Your task to perform on an android device: toggle notification dots Image 0: 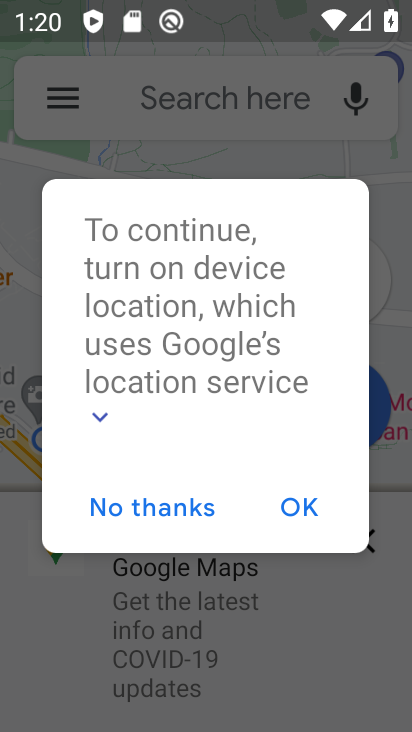
Step 0: click (291, 502)
Your task to perform on an android device: toggle notification dots Image 1: 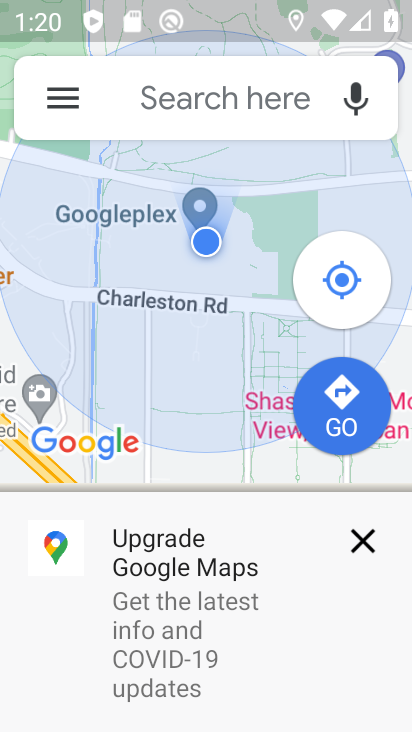
Step 1: press home button
Your task to perform on an android device: toggle notification dots Image 2: 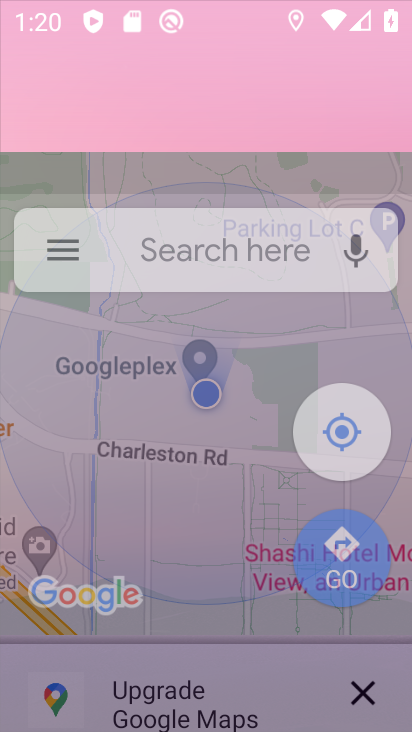
Step 2: drag from (179, 552) to (267, 63)
Your task to perform on an android device: toggle notification dots Image 3: 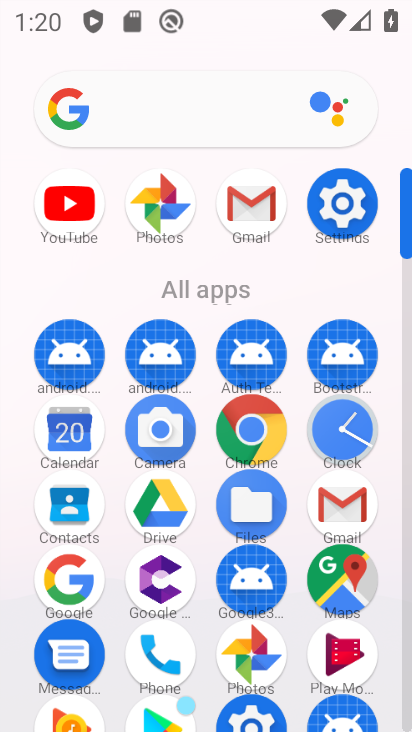
Step 3: drag from (205, 636) to (201, 290)
Your task to perform on an android device: toggle notification dots Image 4: 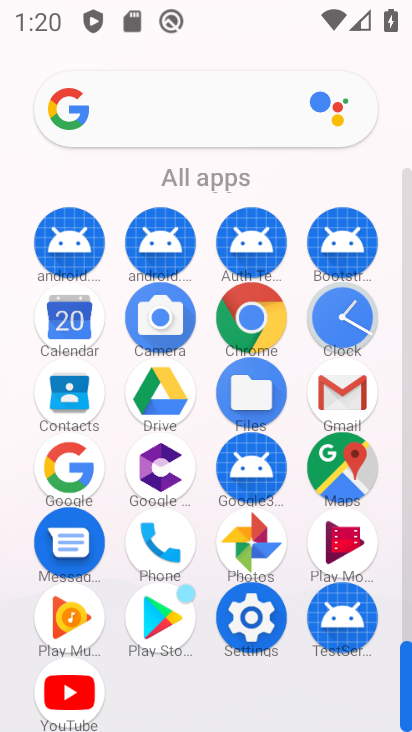
Step 4: click (257, 608)
Your task to perform on an android device: toggle notification dots Image 5: 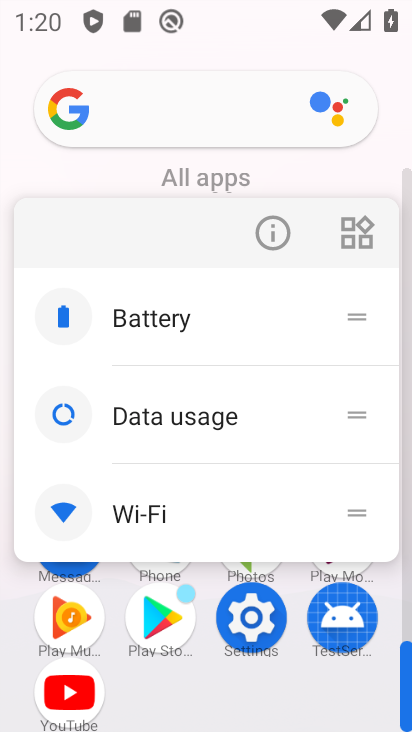
Step 5: click (285, 231)
Your task to perform on an android device: toggle notification dots Image 6: 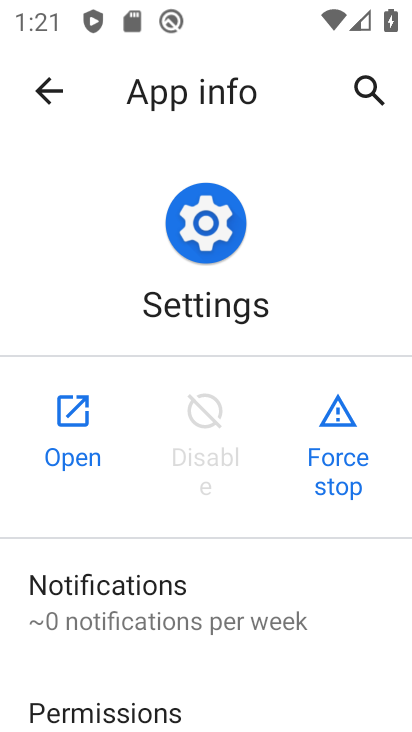
Step 6: click (64, 450)
Your task to perform on an android device: toggle notification dots Image 7: 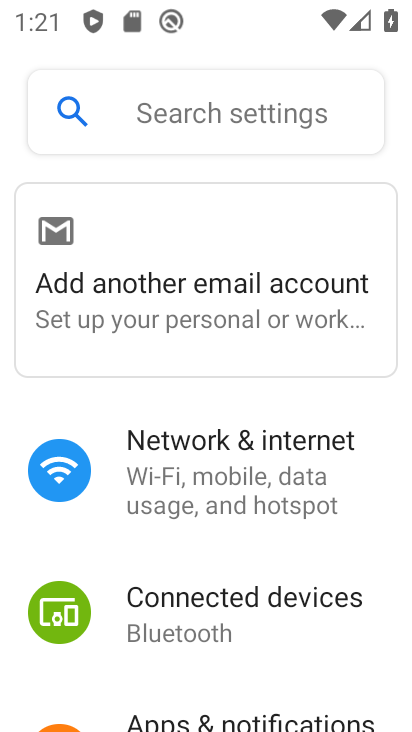
Step 7: drag from (219, 657) to (261, 337)
Your task to perform on an android device: toggle notification dots Image 8: 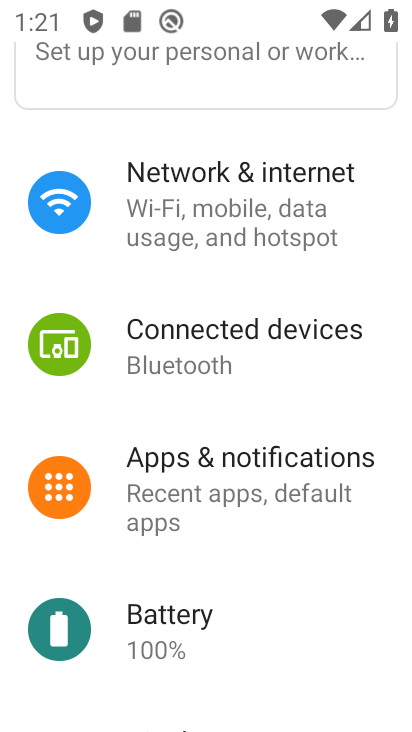
Step 8: drag from (237, 617) to (330, 198)
Your task to perform on an android device: toggle notification dots Image 9: 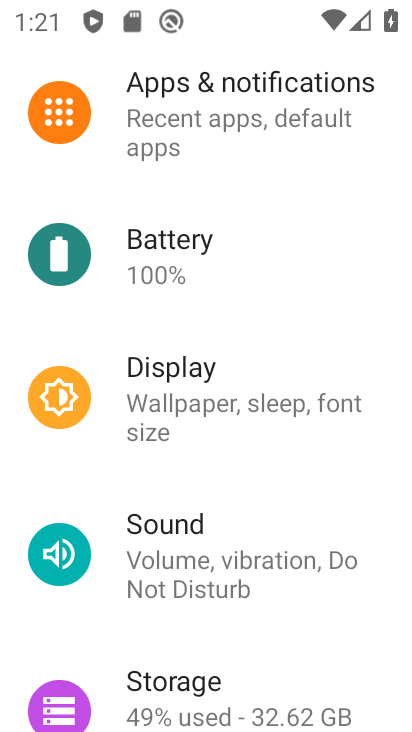
Step 9: drag from (255, 646) to (341, 315)
Your task to perform on an android device: toggle notification dots Image 10: 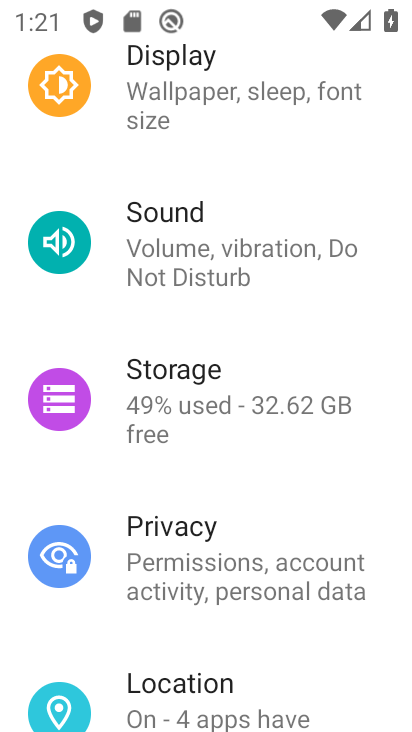
Step 10: drag from (256, 589) to (288, 314)
Your task to perform on an android device: toggle notification dots Image 11: 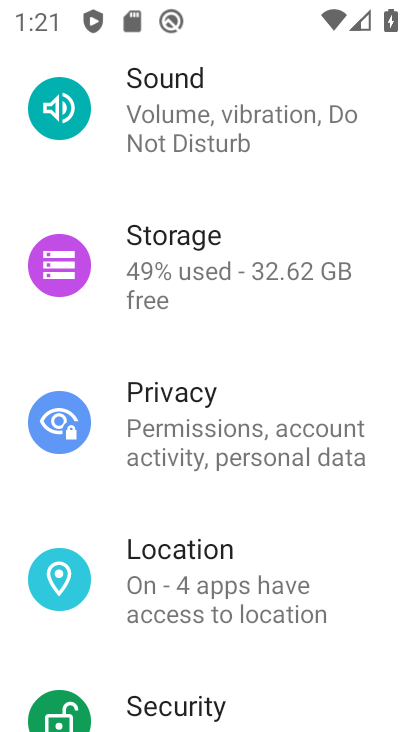
Step 11: drag from (215, 333) to (311, 605)
Your task to perform on an android device: toggle notification dots Image 12: 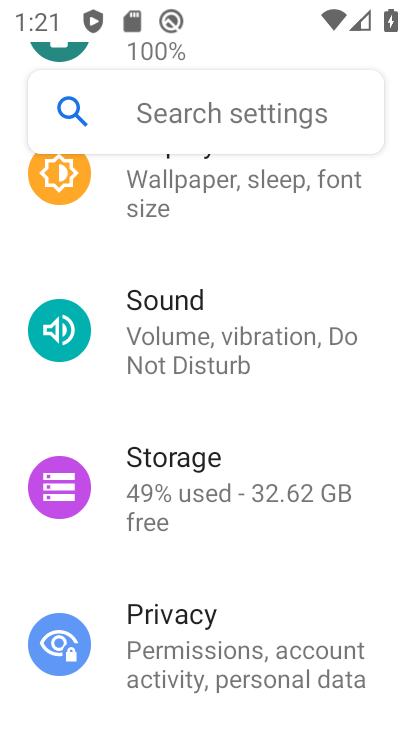
Step 12: drag from (225, 279) to (348, 689)
Your task to perform on an android device: toggle notification dots Image 13: 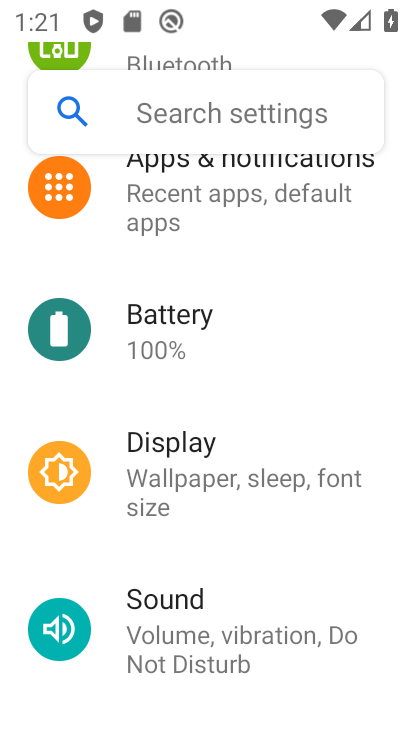
Step 13: click (215, 191)
Your task to perform on an android device: toggle notification dots Image 14: 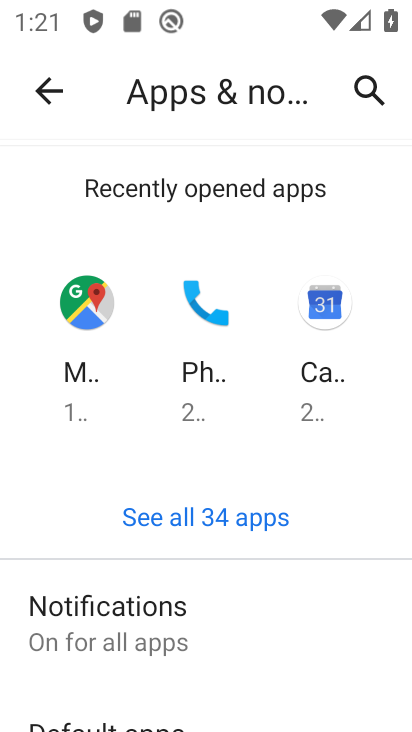
Step 14: click (248, 239)
Your task to perform on an android device: toggle notification dots Image 15: 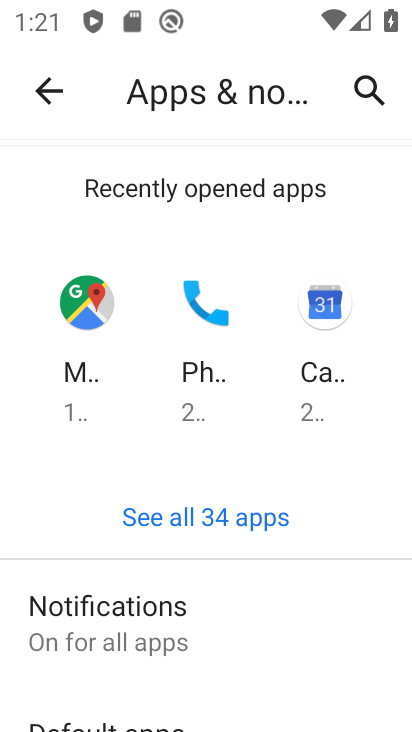
Step 15: click (220, 616)
Your task to perform on an android device: toggle notification dots Image 16: 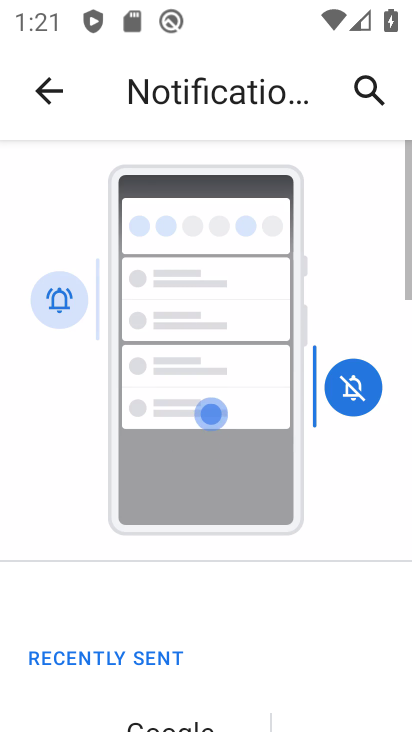
Step 16: drag from (226, 612) to (319, 78)
Your task to perform on an android device: toggle notification dots Image 17: 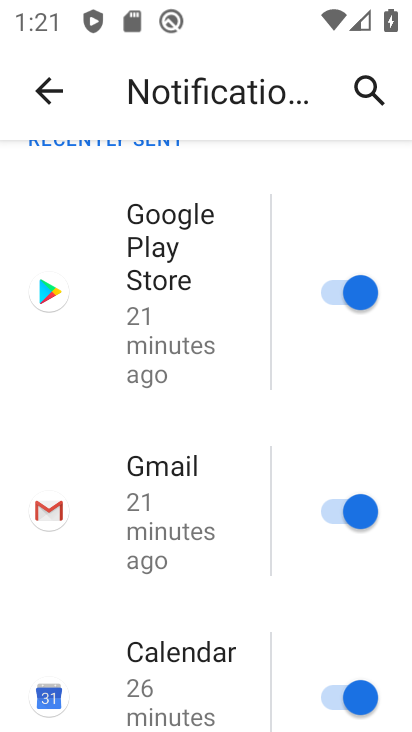
Step 17: drag from (227, 638) to (293, 299)
Your task to perform on an android device: toggle notification dots Image 18: 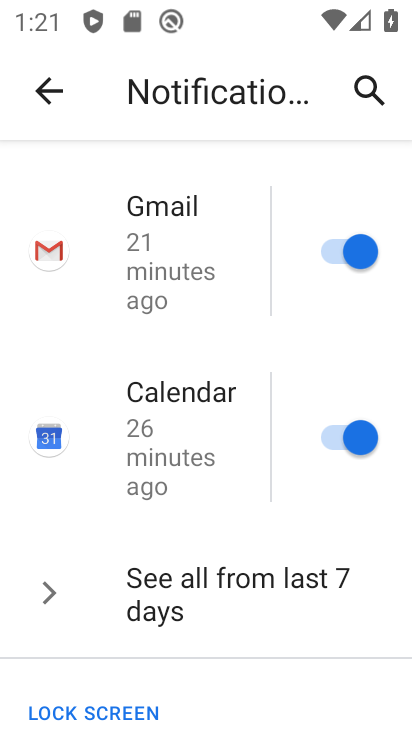
Step 18: drag from (242, 666) to (371, 275)
Your task to perform on an android device: toggle notification dots Image 19: 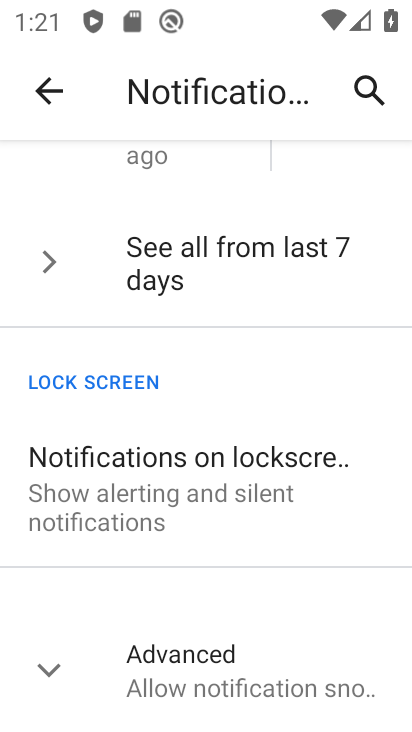
Step 19: drag from (219, 622) to (273, 296)
Your task to perform on an android device: toggle notification dots Image 20: 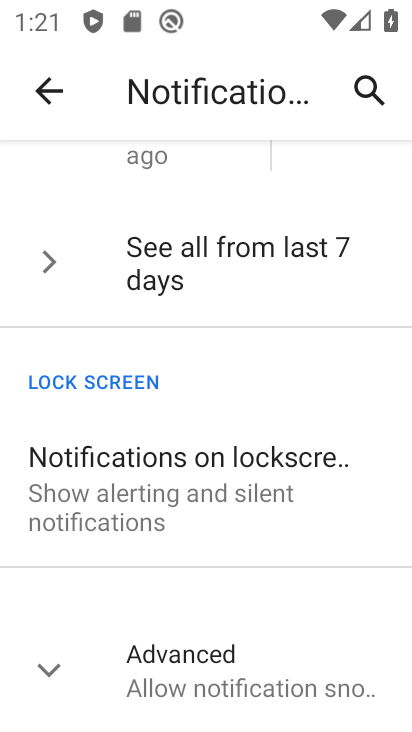
Step 20: click (167, 660)
Your task to perform on an android device: toggle notification dots Image 21: 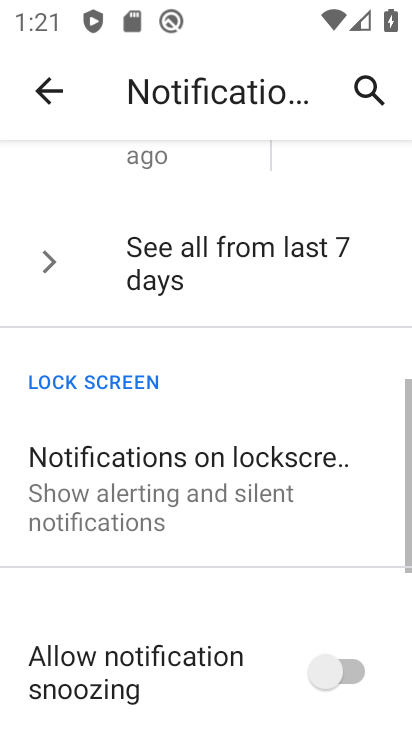
Step 21: drag from (210, 645) to (283, 251)
Your task to perform on an android device: toggle notification dots Image 22: 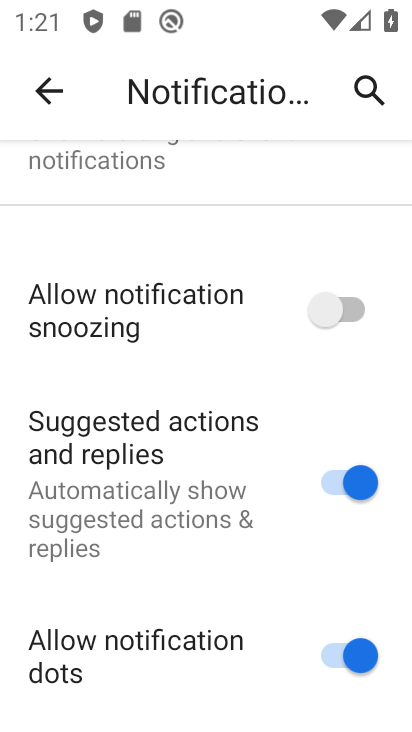
Step 22: drag from (221, 606) to (257, 332)
Your task to perform on an android device: toggle notification dots Image 23: 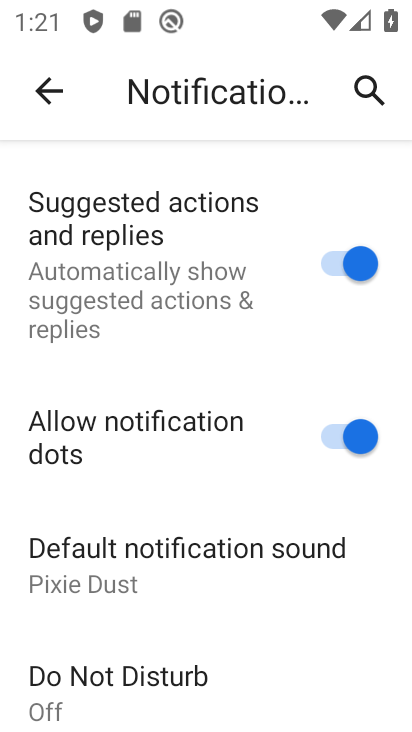
Step 23: drag from (269, 558) to (325, 361)
Your task to perform on an android device: toggle notification dots Image 24: 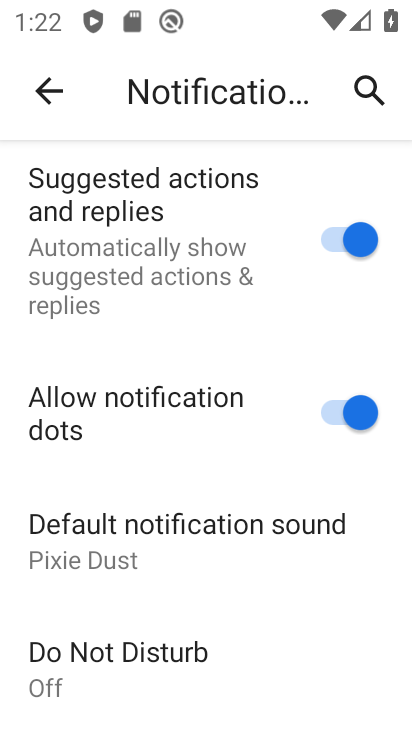
Step 24: click (344, 409)
Your task to perform on an android device: toggle notification dots Image 25: 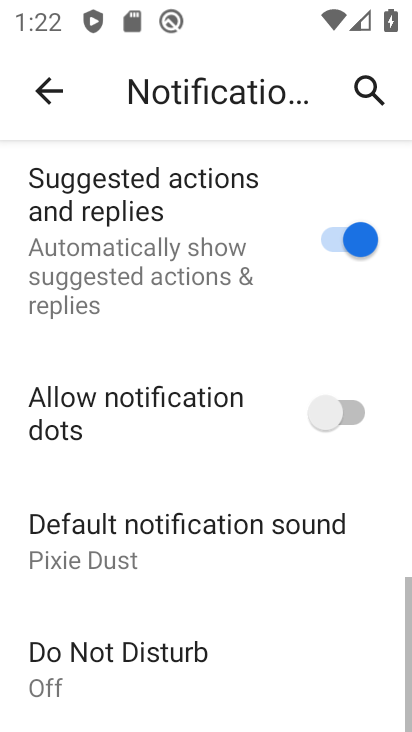
Step 25: task complete